Your task to perform on an android device: turn vacation reply on in the gmail app Image 0: 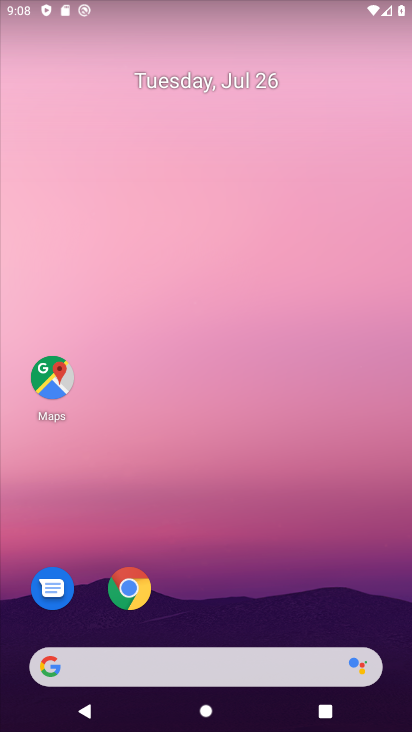
Step 0: drag from (172, 638) to (137, 285)
Your task to perform on an android device: turn vacation reply on in the gmail app Image 1: 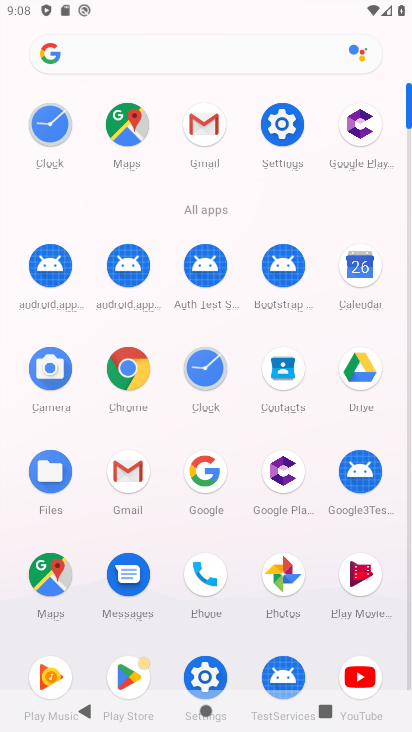
Step 1: click (202, 144)
Your task to perform on an android device: turn vacation reply on in the gmail app Image 2: 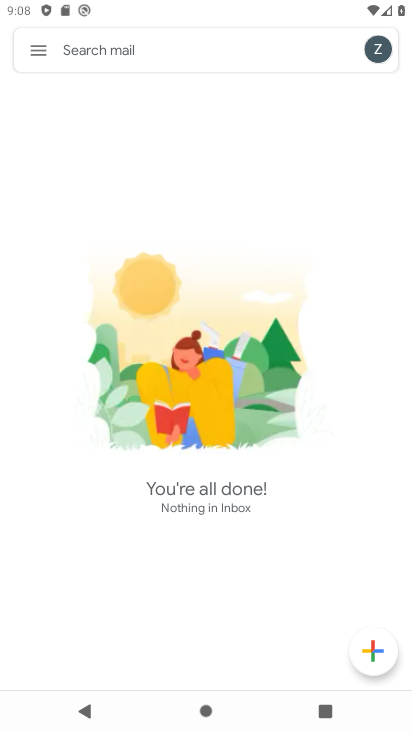
Step 2: click (36, 53)
Your task to perform on an android device: turn vacation reply on in the gmail app Image 3: 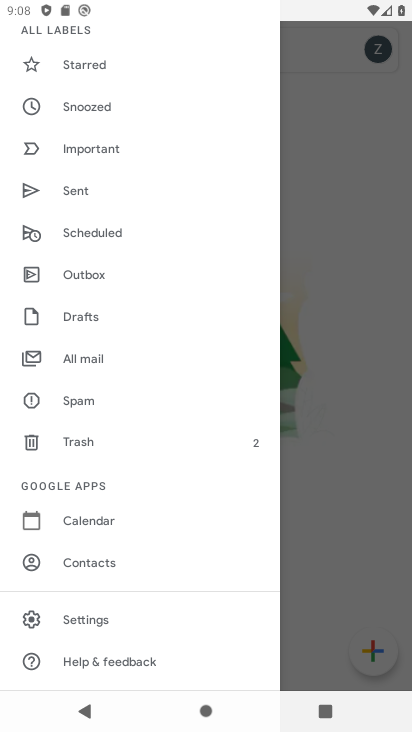
Step 3: click (89, 622)
Your task to perform on an android device: turn vacation reply on in the gmail app Image 4: 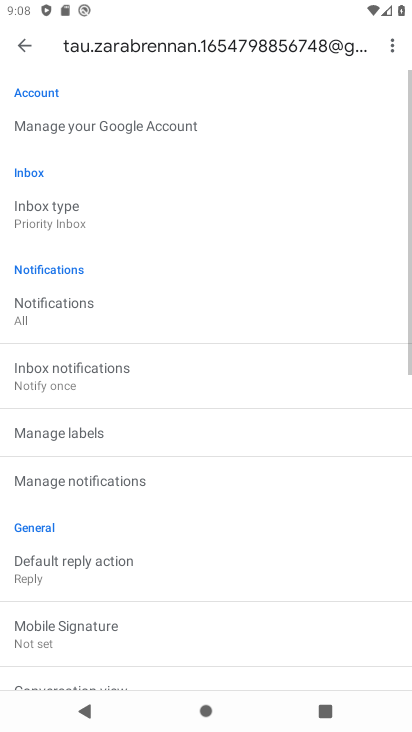
Step 4: drag from (146, 568) to (163, 319)
Your task to perform on an android device: turn vacation reply on in the gmail app Image 5: 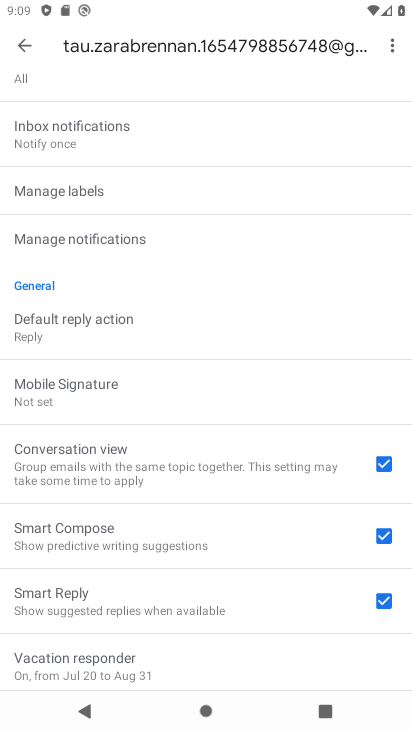
Step 5: click (29, 666)
Your task to perform on an android device: turn vacation reply on in the gmail app Image 6: 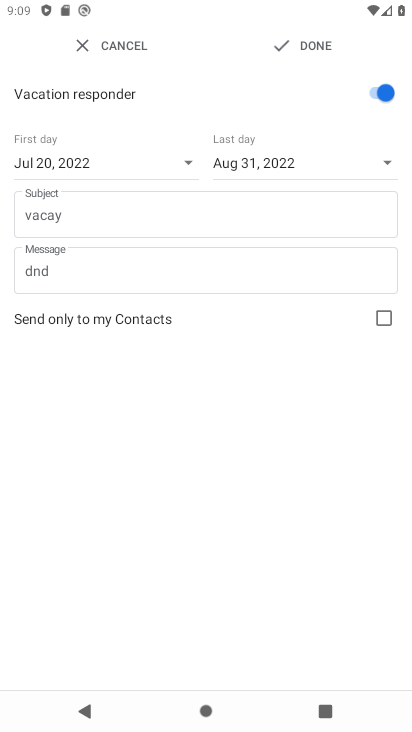
Step 6: click (291, 47)
Your task to perform on an android device: turn vacation reply on in the gmail app Image 7: 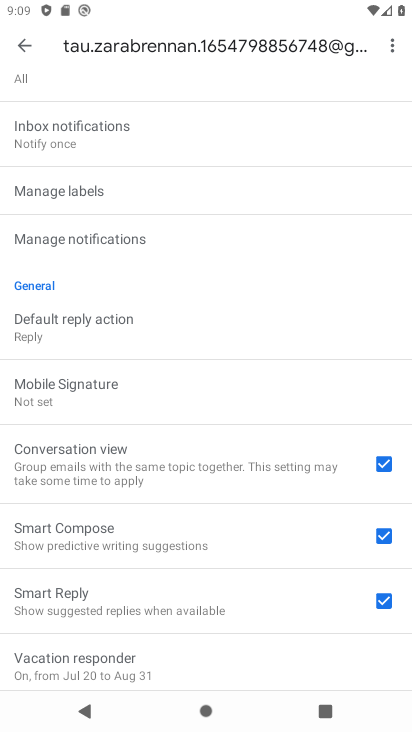
Step 7: task complete